Your task to perform on an android device: open a bookmark in the chrome app Image 0: 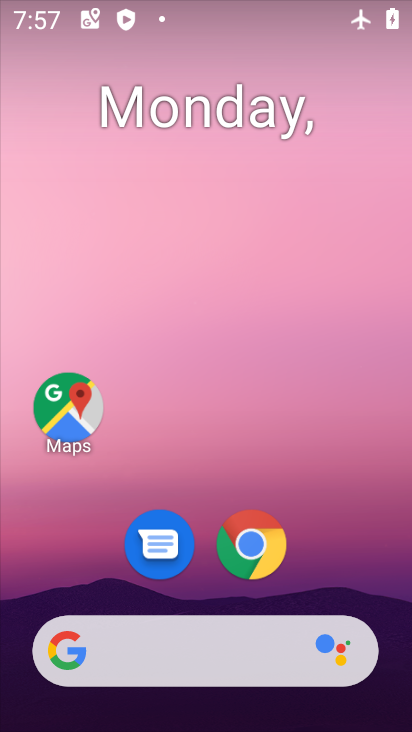
Step 0: click (267, 548)
Your task to perform on an android device: open a bookmark in the chrome app Image 1: 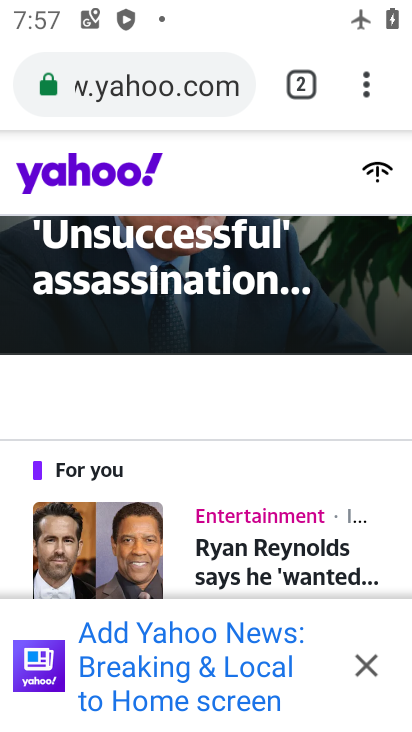
Step 1: click (367, 89)
Your task to perform on an android device: open a bookmark in the chrome app Image 2: 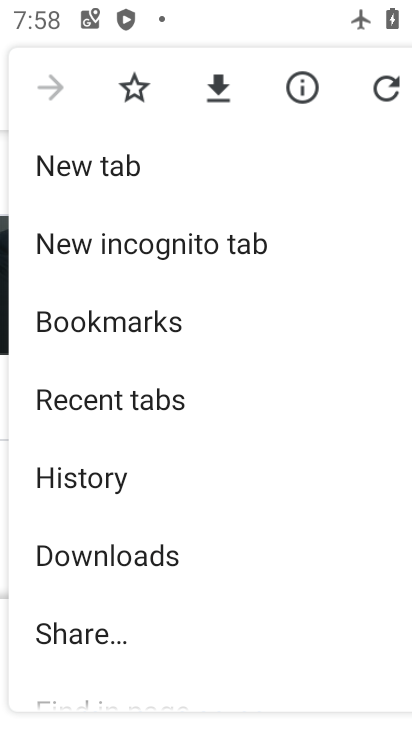
Step 2: click (80, 317)
Your task to perform on an android device: open a bookmark in the chrome app Image 3: 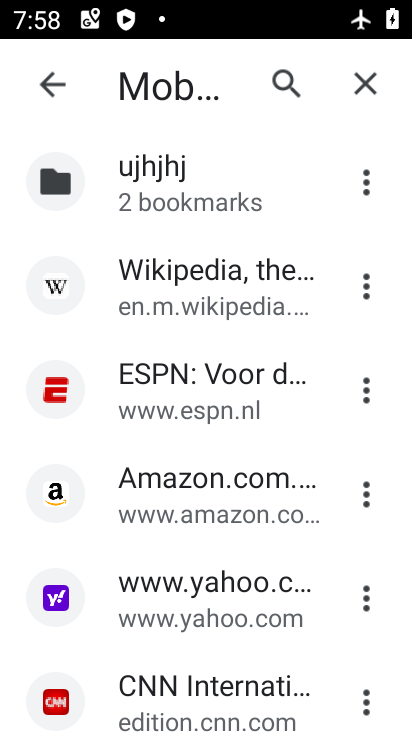
Step 3: task complete